Your task to perform on an android device: set the timer Image 0: 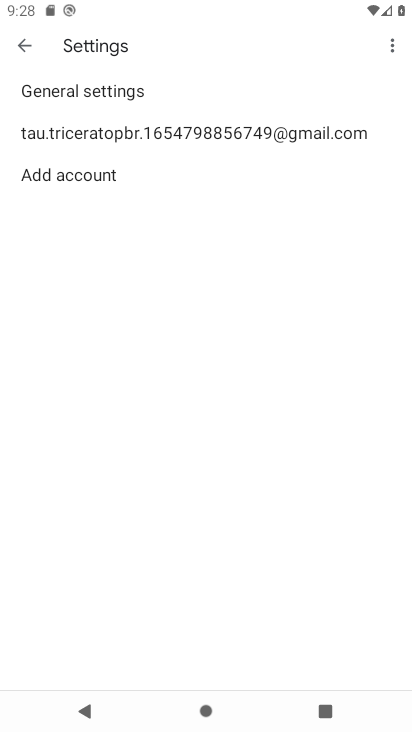
Step 0: press home button
Your task to perform on an android device: set the timer Image 1: 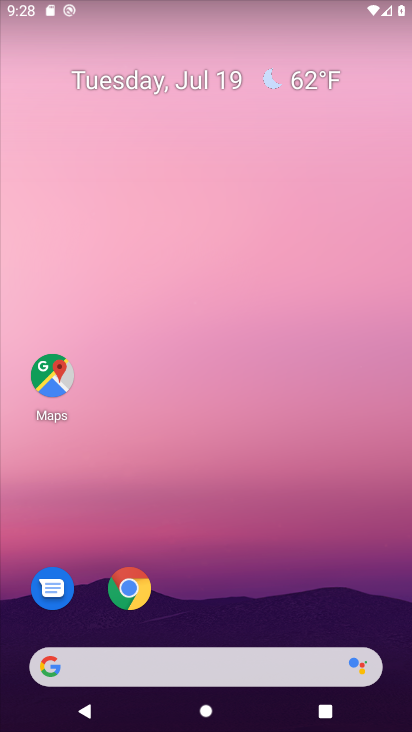
Step 1: drag from (198, 516) to (188, 118)
Your task to perform on an android device: set the timer Image 2: 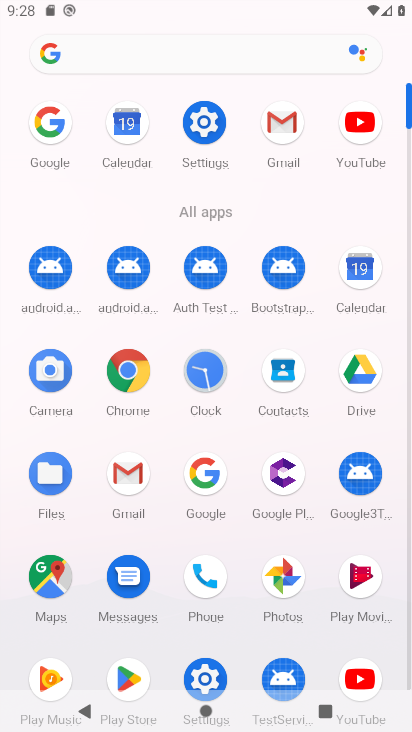
Step 2: click (192, 364)
Your task to perform on an android device: set the timer Image 3: 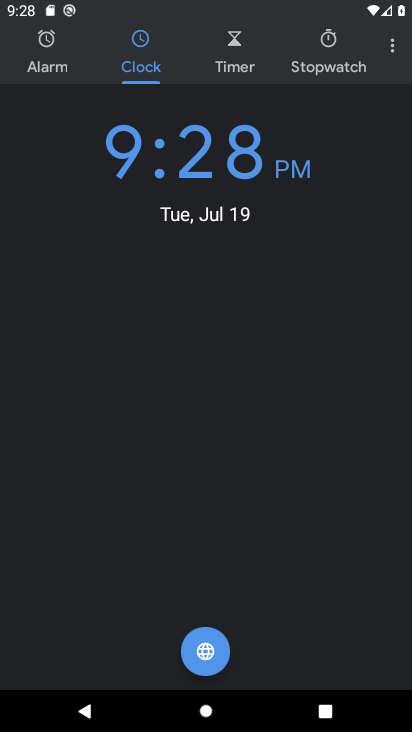
Step 3: click (236, 55)
Your task to perform on an android device: set the timer Image 4: 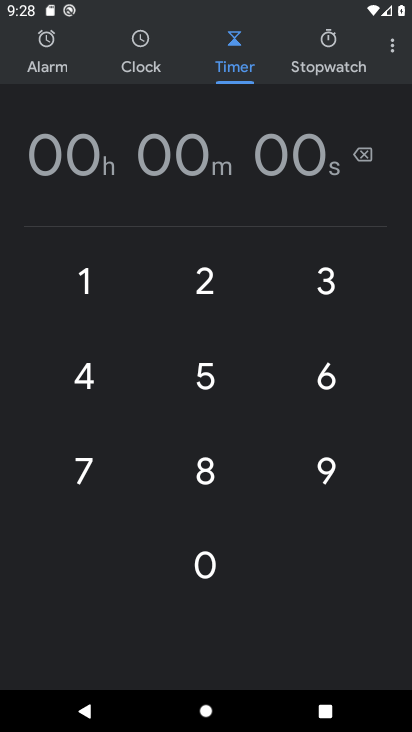
Step 4: click (207, 283)
Your task to perform on an android device: set the timer Image 5: 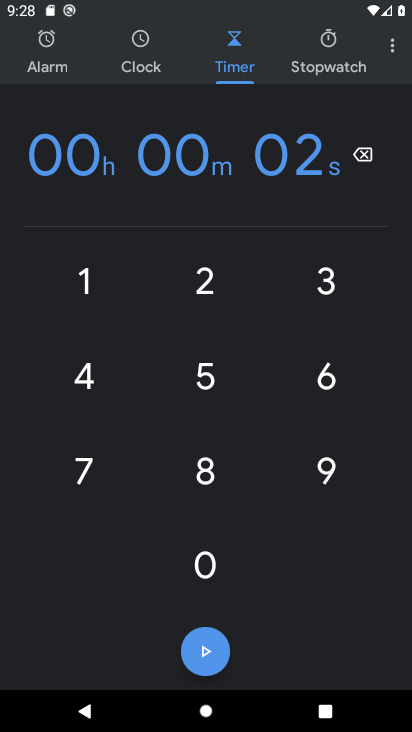
Step 5: click (211, 572)
Your task to perform on an android device: set the timer Image 6: 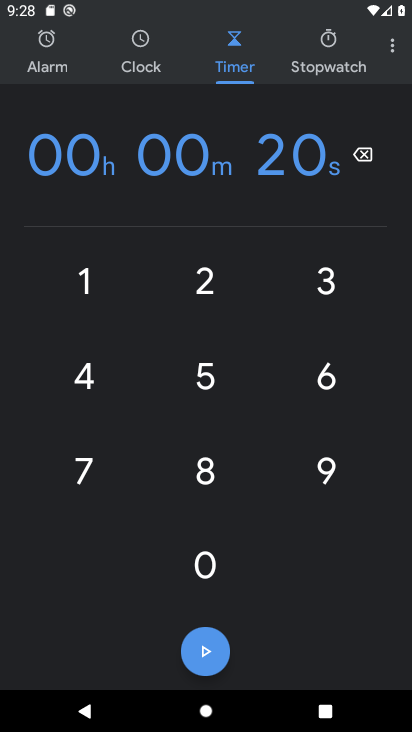
Step 6: click (211, 572)
Your task to perform on an android device: set the timer Image 7: 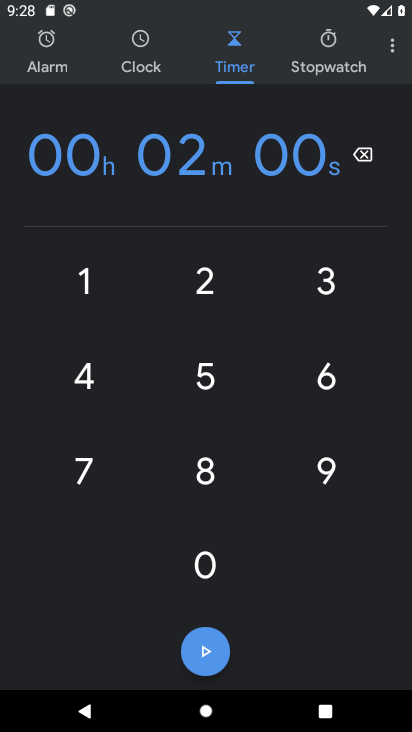
Step 7: click (211, 572)
Your task to perform on an android device: set the timer Image 8: 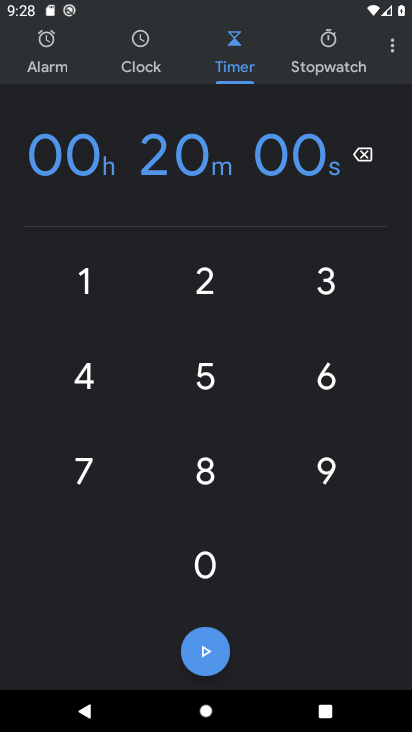
Step 8: click (217, 655)
Your task to perform on an android device: set the timer Image 9: 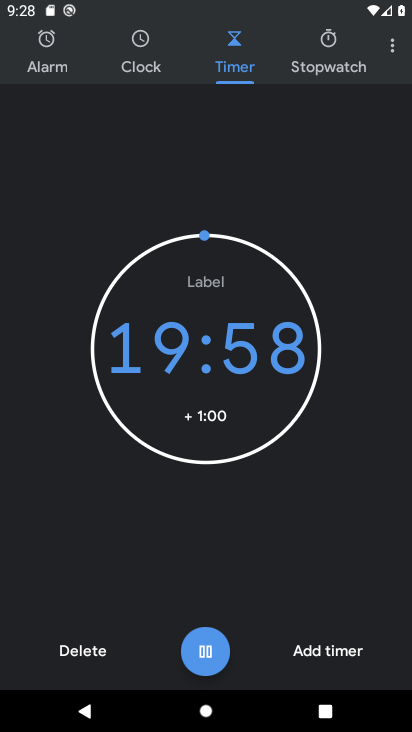
Step 9: click (309, 653)
Your task to perform on an android device: set the timer Image 10: 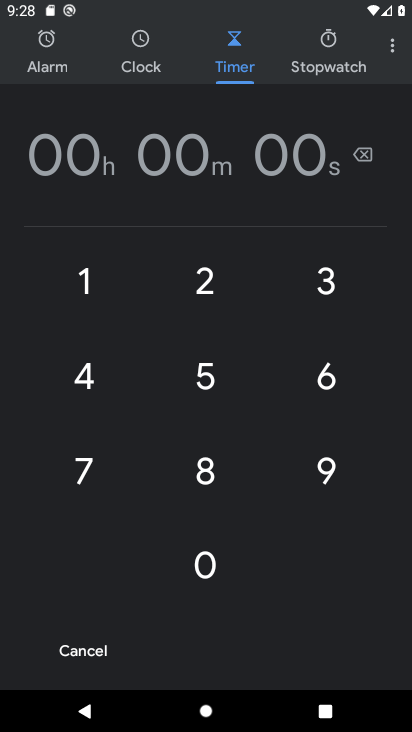
Step 10: task complete